Your task to perform on an android device: find snoozed emails in the gmail app Image 0: 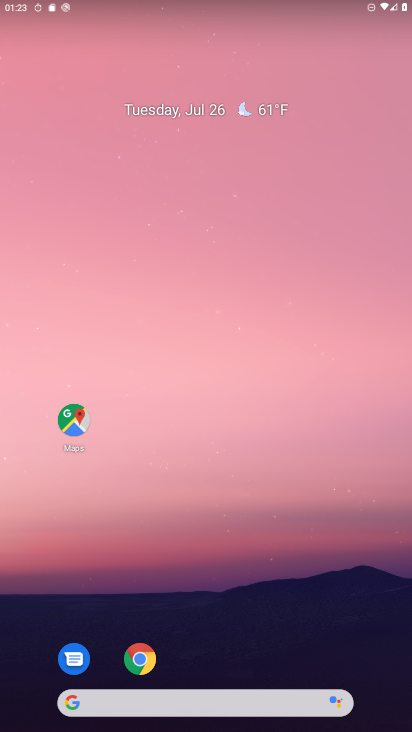
Step 0: drag from (125, 457) to (178, 323)
Your task to perform on an android device: find snoozed emails in the gmail app Image 1: 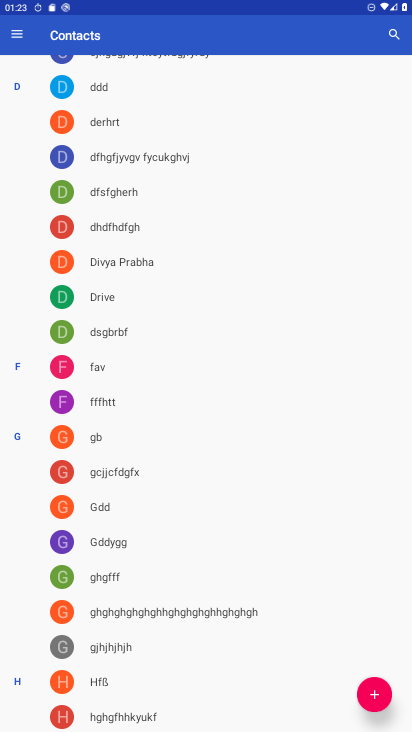
Step 1: press home button
Your task to perform on an android device: find snoozed emails in the gmail app Image 2: 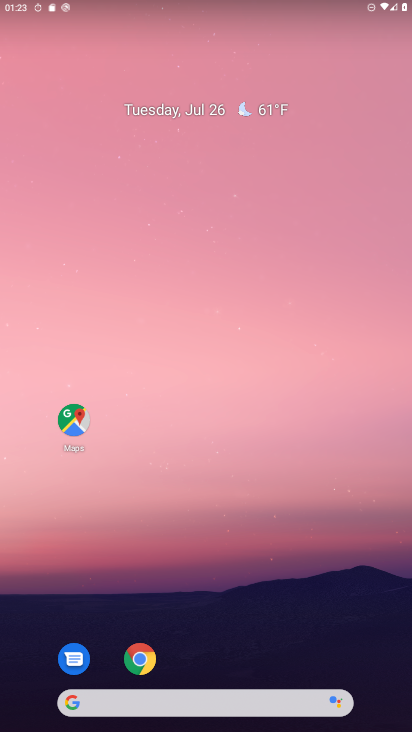
Step 2: drag from (135, 532) to (411, 205)
Your task to perform on an android device: find snoozed emails in the gmail app Image 3: 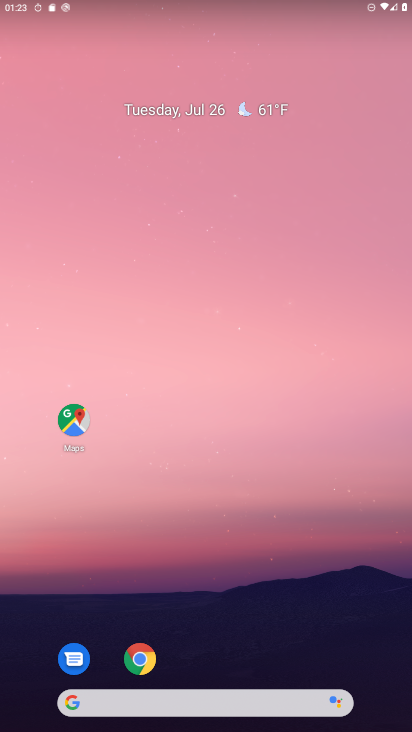
Step 3: drag from (60, 660) to (215, 273)
Your task to perform on an android device: find snoozed emails in the gmail app Image 4: 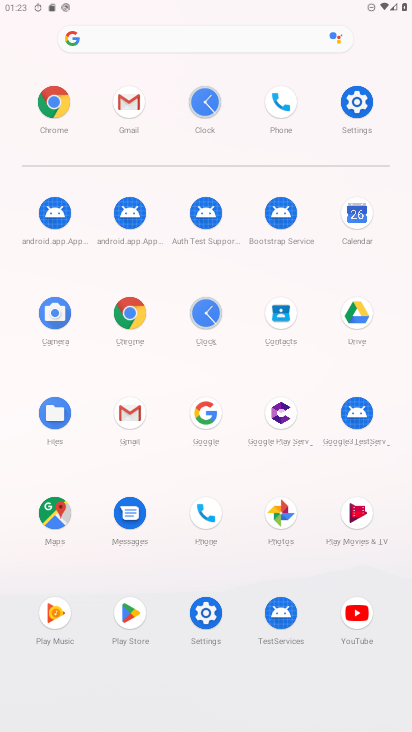
Step 4: click (131, 425)
Your task to perform on an android device: find snoozed emails in the gmail app Image 5: 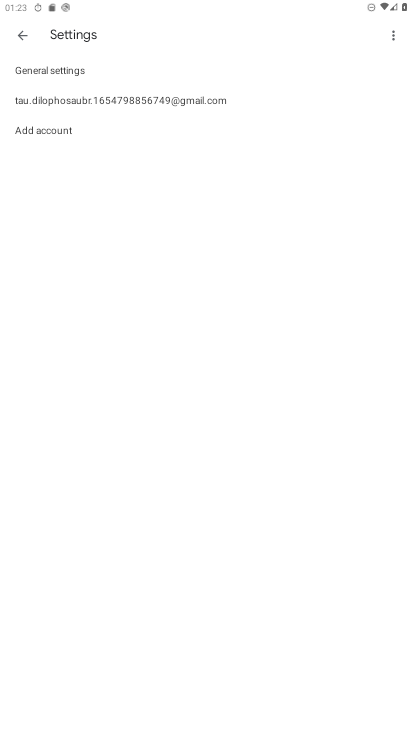
Step 5: click (21, 35)
Your task to perform on an android device: find snoozed emails in the gmail app Image 6: 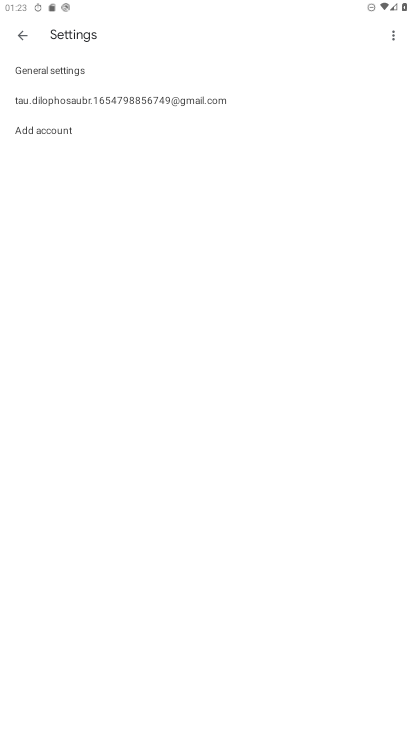
Step 6: click (22, 30)
Your task to perform on an android device: find snoozed emails in the gmail app Image 7: 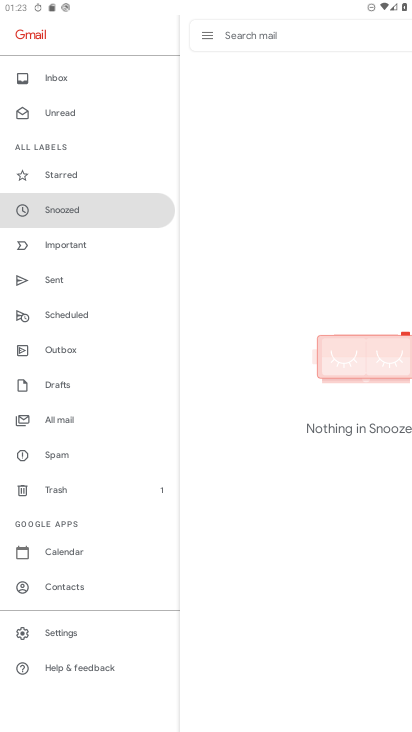
Step 7: click (73, 204)
Your task to perform on an android device: find snoozed emails in the gmail app Image 8: 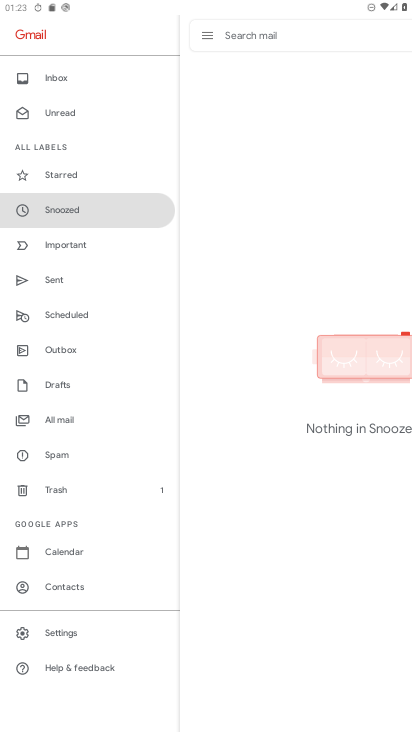
Step 8: task complete